Your task to perform on an android device: Open Youtube and go to the subscriptions tab Image 0: 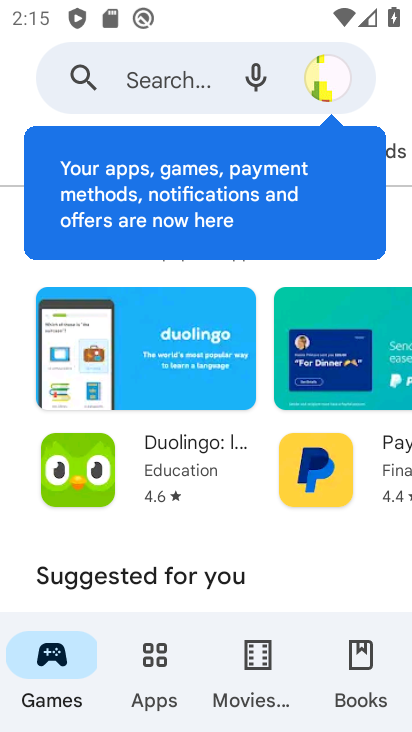
Step 0: press home button
Your task to perform on an android device: Open Youtube and go to the subscriptions tab Image 1: 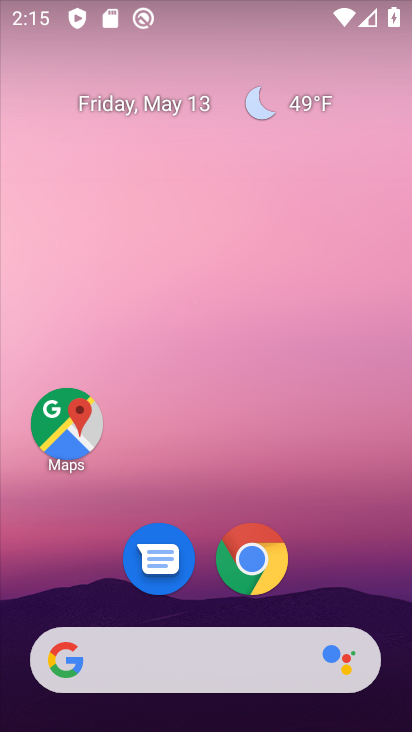
Step 1: drag from (409, 653) to (311, 231)
Your task to perform on an android device: Open Youtube and go to the subscriptions tab Image 2: 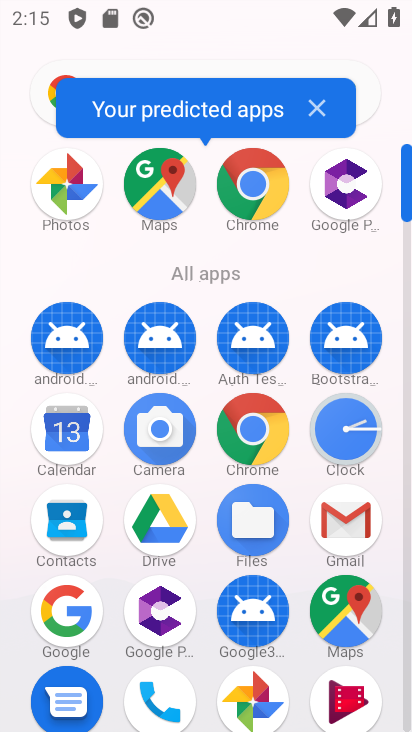
Step 2: click (410, 694)
Your task to perform on an android device: Open Youtube and go to the subscriptions tab Image 3: 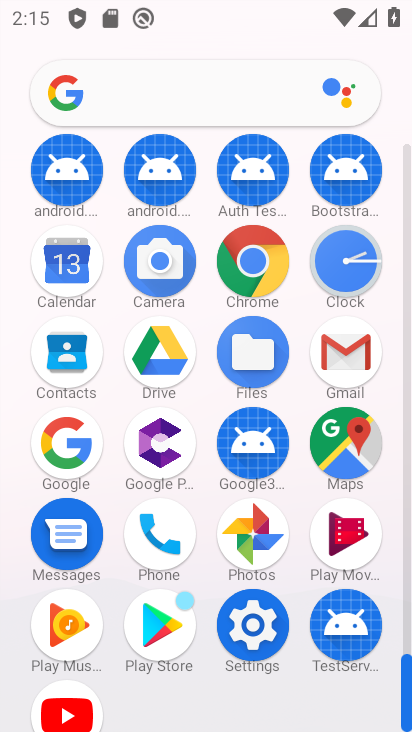
Step 3: click (62, 715)
Your task to perform on an android device: Open Youtube and go to the subscriptions tab Image 4: 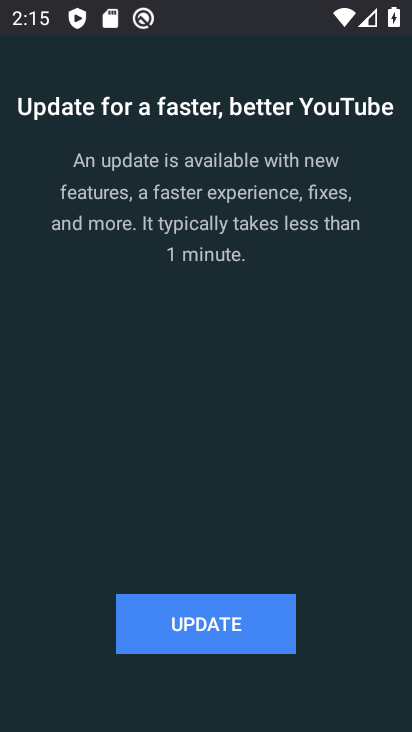
Step 4: click (201, 623)
Your task to perform on an android device: Open Youtube and go to the subscriptions tab Image 5: 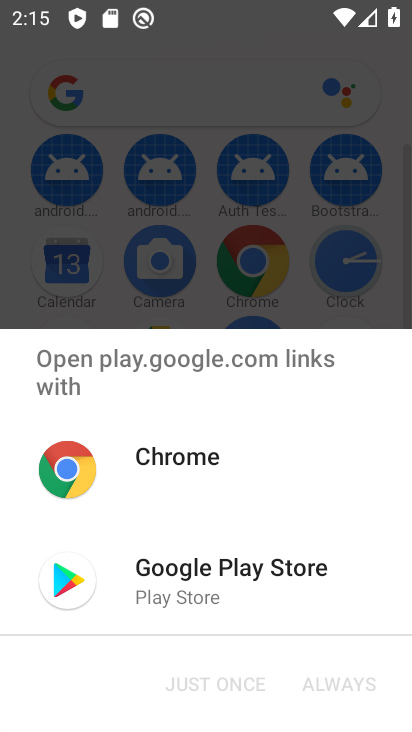
Step 5: click (179, 570)
Your task to perform on an android device: Open Youtube and go to the subscriptions tab Image 6: 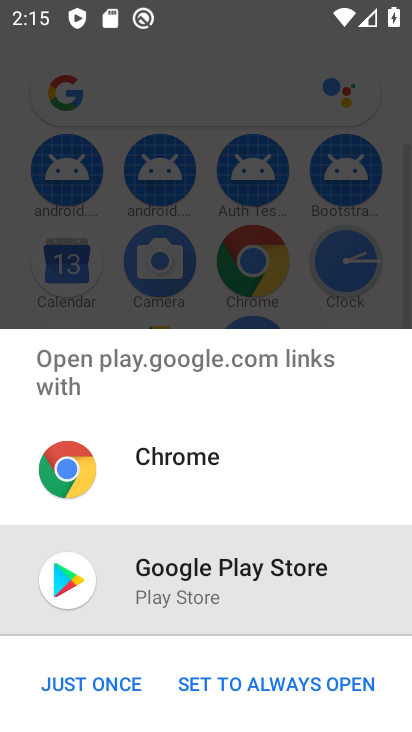
Step 6: click (97, 676)
Your task to perform on an android device: Open Youtube and go to the subscriptions tab Image 7: 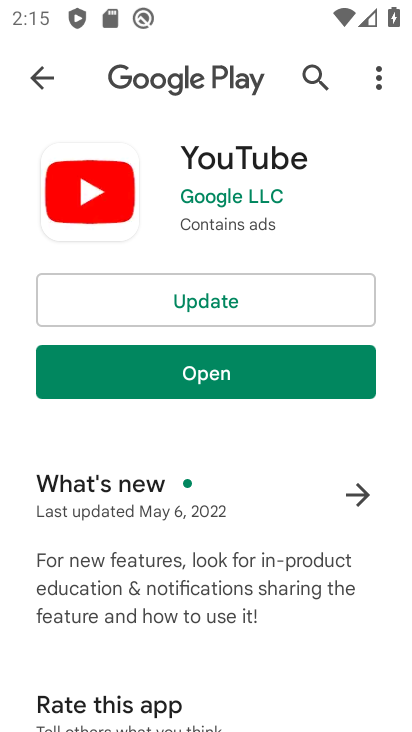
Step 7: click (203, 297)
Your task to perform on an android device: Open Youtube and go to the subscriptions tab Image 8: 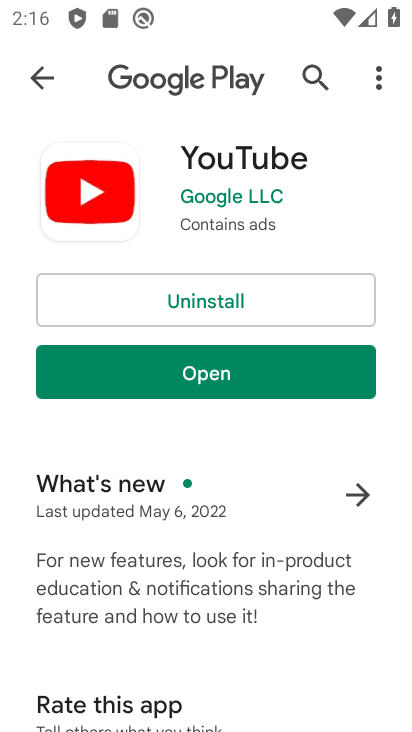
Step 8: click (200, 372)
Your task to perform on an android device: Open Youtube and go to the subscriptions tab Image 9: 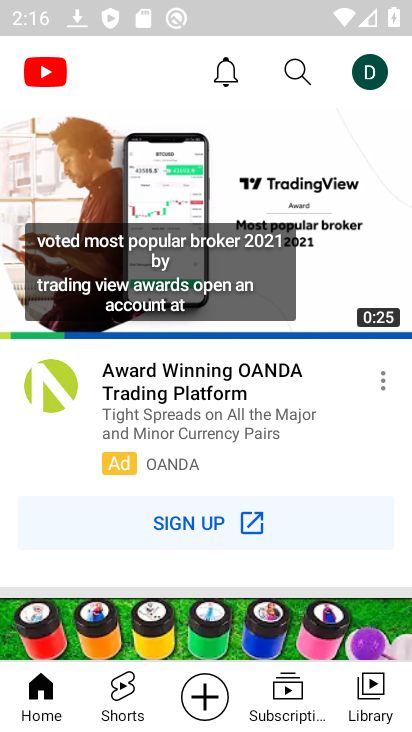
Step 9: click (288, 697)
Your task to perform on an android device: Open Youtube and go to the subscriptions tab Image 10: 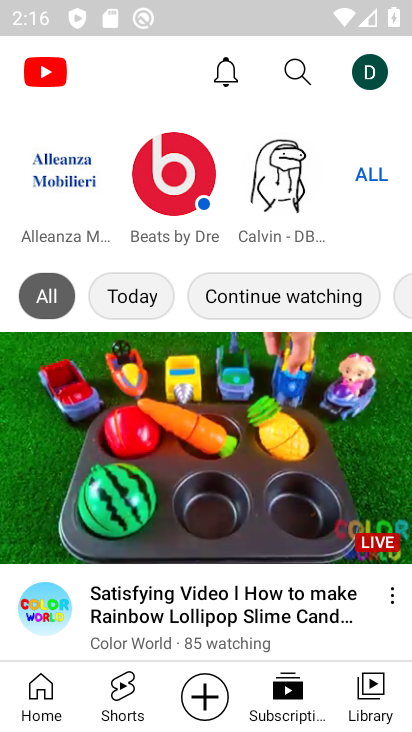
Step 10: task complete